Your task to perform on an android device: Open Amazon Image 0: 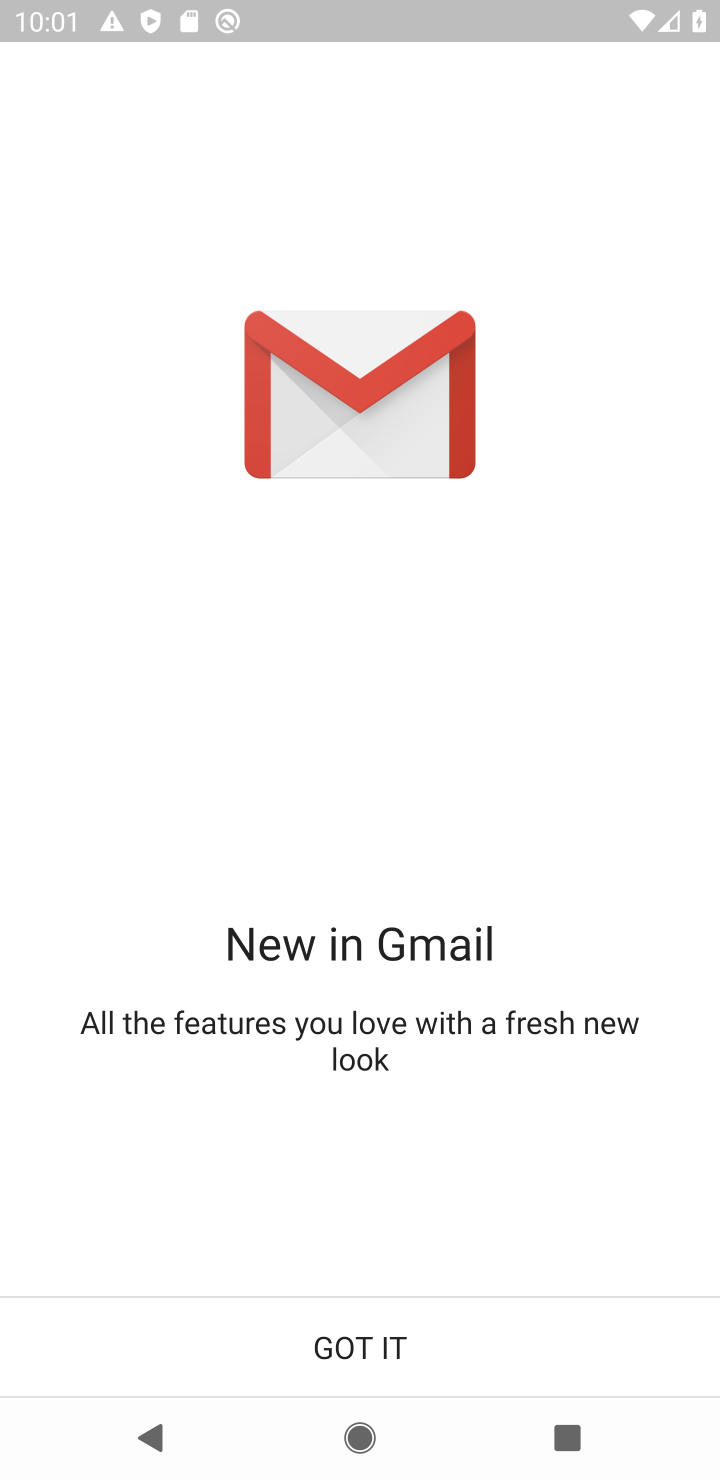
Step 0: click (359, 1341)
Your task to perform on an android device: Open Amazon Image 1: 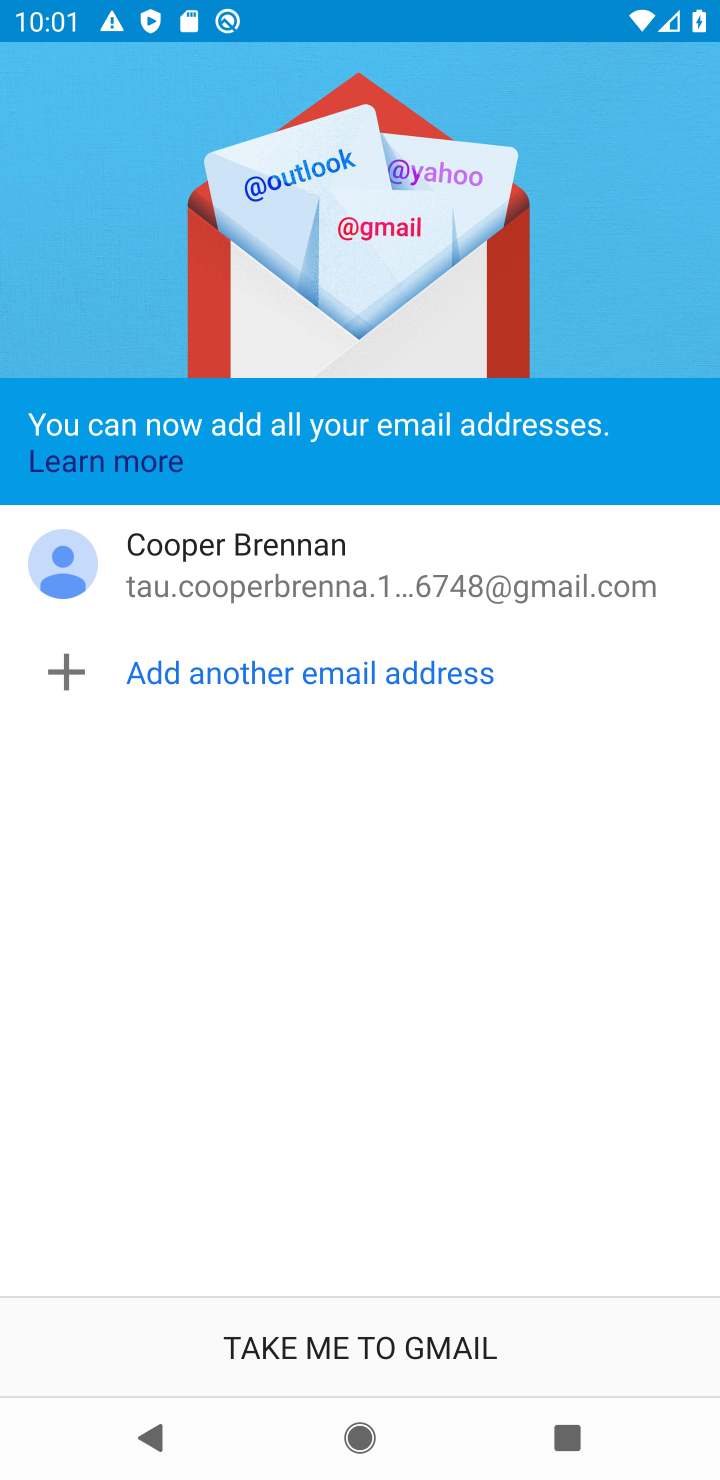
Step 1: click (354, 1322)
Your task to perform on an android device: Open Amazon Image 2: 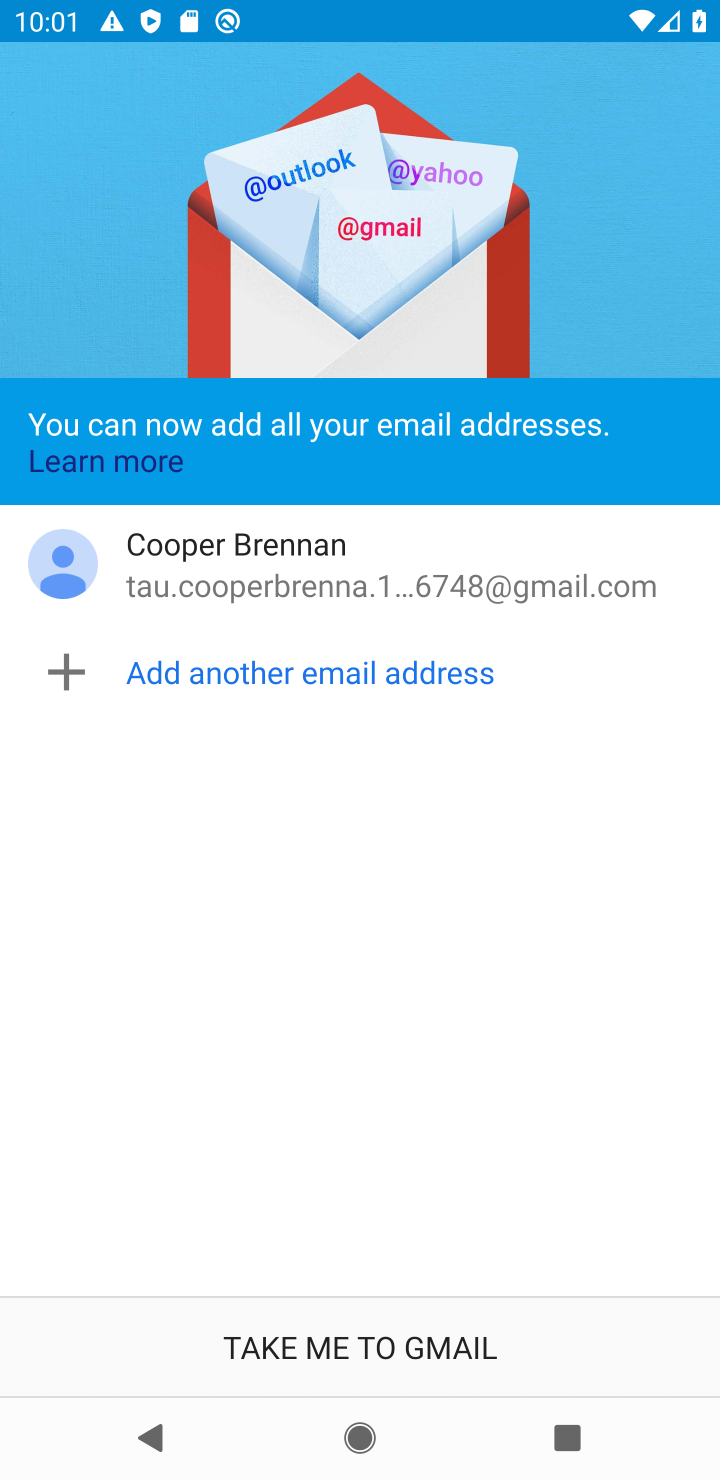
Step 2: click (354, 1337)
Your task to perform on an android device: Open Amazon Image 3: 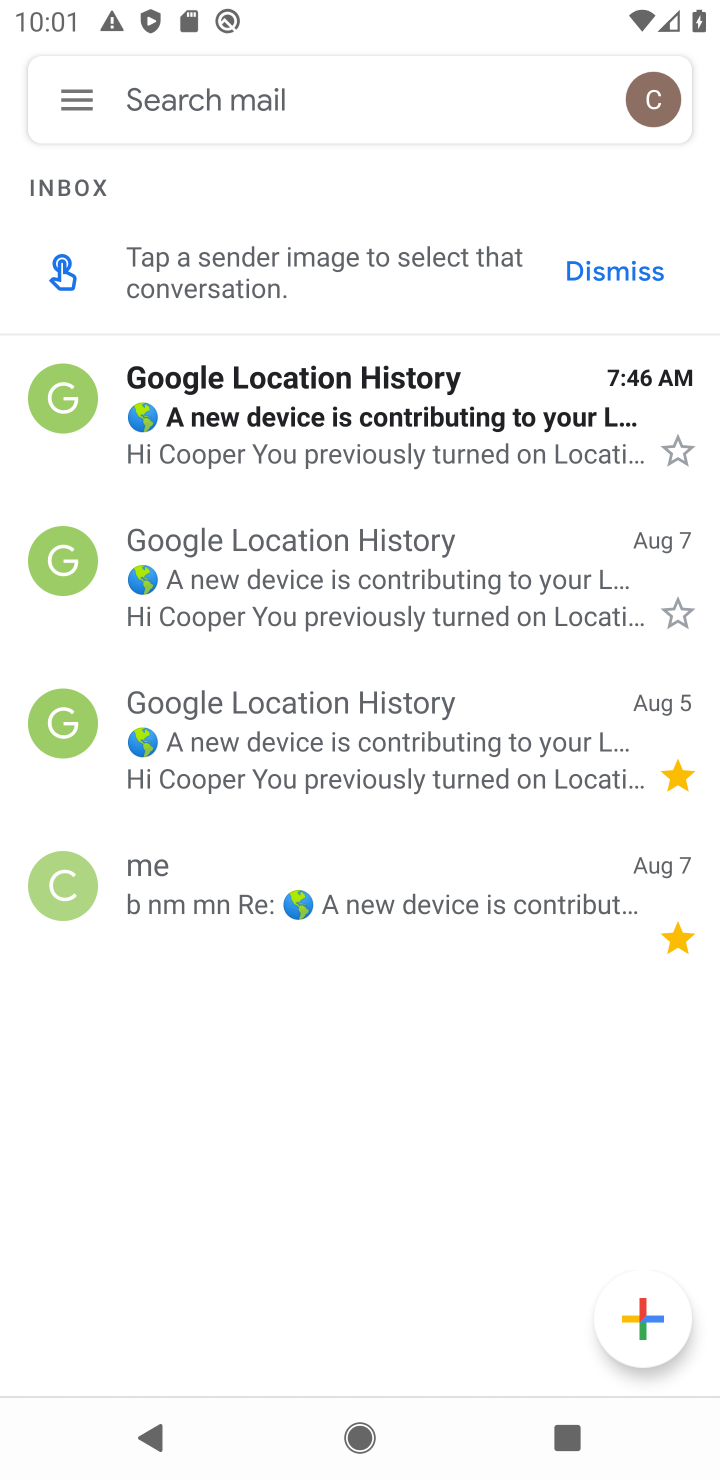
Step 3: task complete